Your task to perform on an android device: What's on my calendar tomorrow? Image 0: 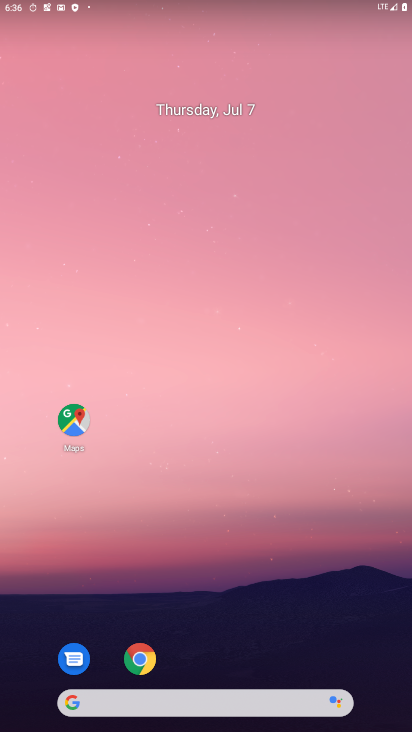
Step 0: drag from (369, 628) to (266, 4)
Your task to perform on an android device: What's on my calendar tomorrow? Image 1: 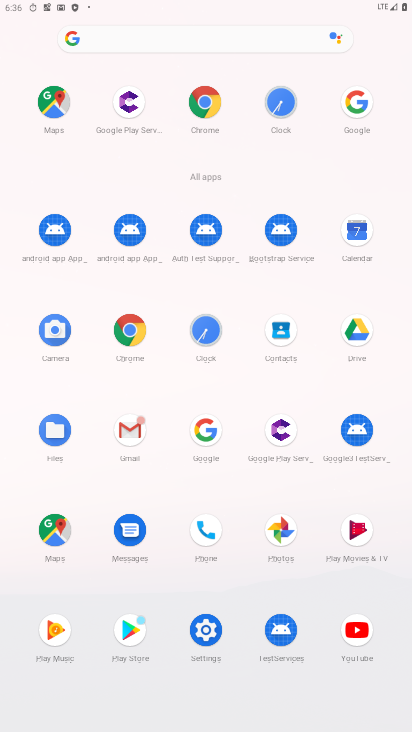
Step 1: click (359, 231)
Your task to perform on an android device: What's on my calendar tomorrow? Image 2: 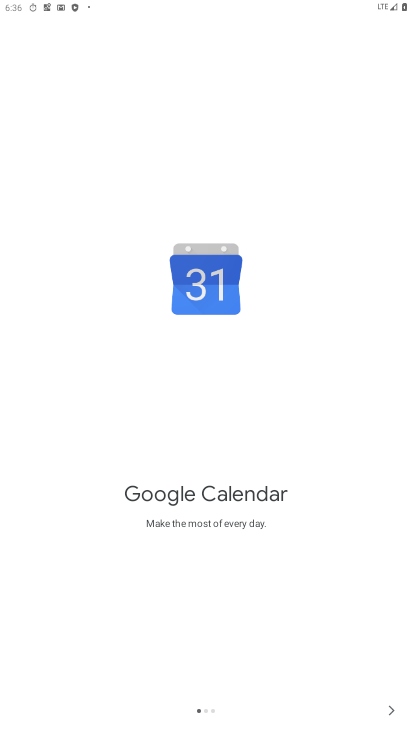
Step 2: click (386, 705)
Your task to perform on an android device: What's on my calendar tomorrow? Image 3: 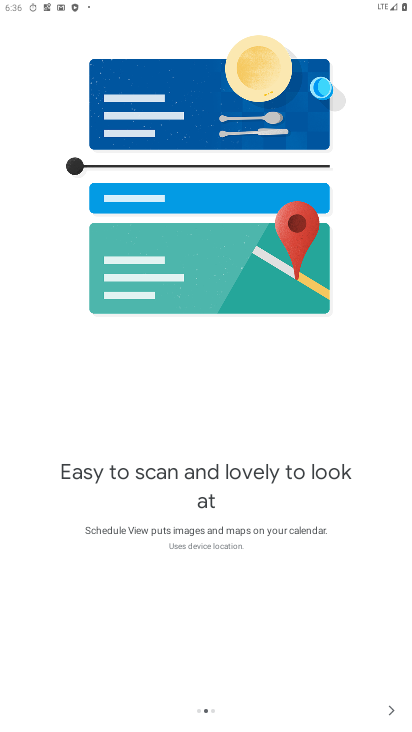
Step 3: click (387, 707)
Your task to perform on an android device: What's on my calendar tomorrow? Image 4: 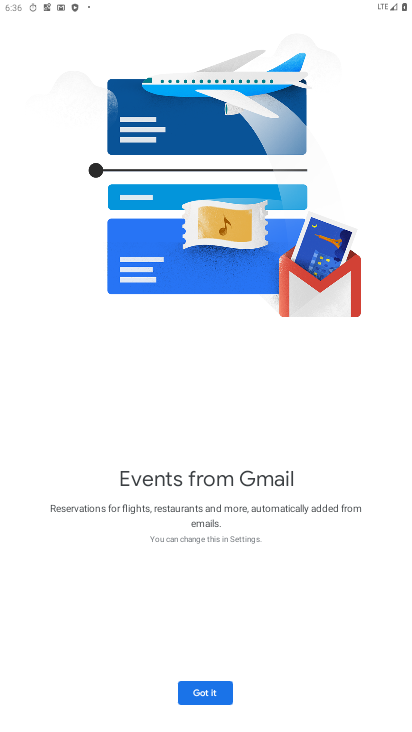
Step 4: click (188, 683)
Your task to perform on an android device: What's on my calendar tomorrow? Image 5: 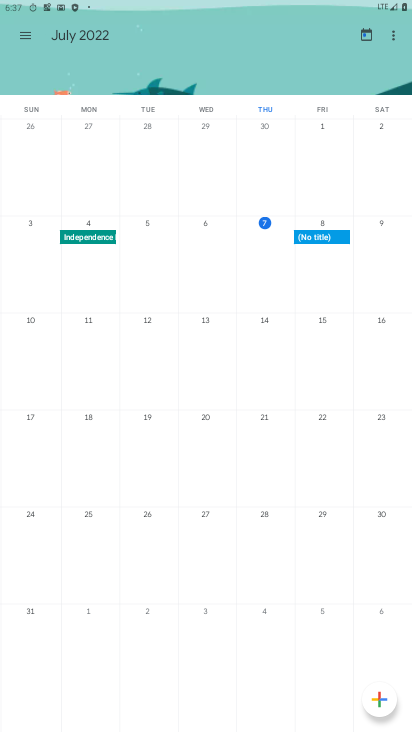
Step 5: click (384, 219)
Your task to perform on an android device: What's on my calendar tomorrow? Image 6: 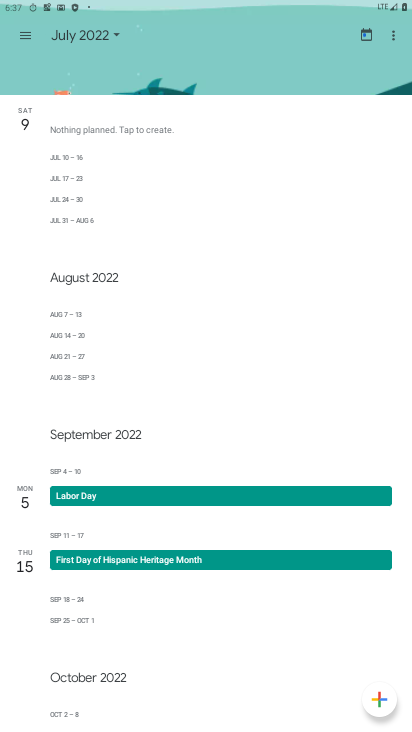
Step 6: task complete